Your task to perform on an android device: Open my contact list Image 0: 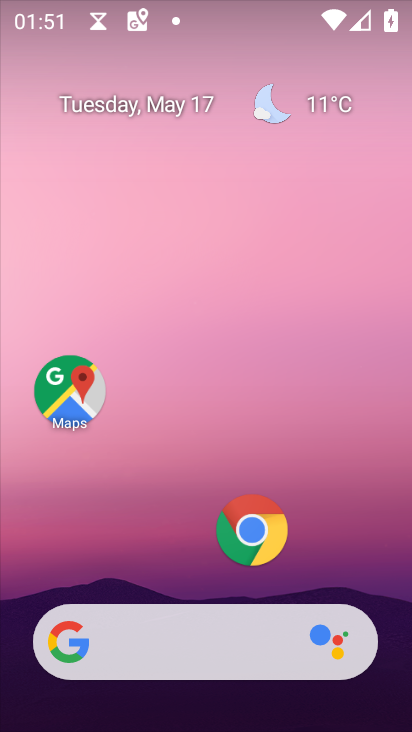
Step 0: drag from (309, 523) to (262, 183)
Your task to perform on an android device: Open my contact list Image 1: 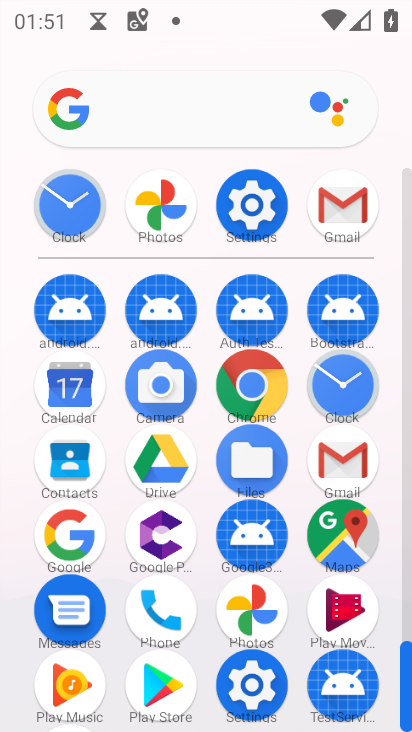
Step 1: click (70, 473)
Your task to perform on an android device: Open my contact list Image 2: 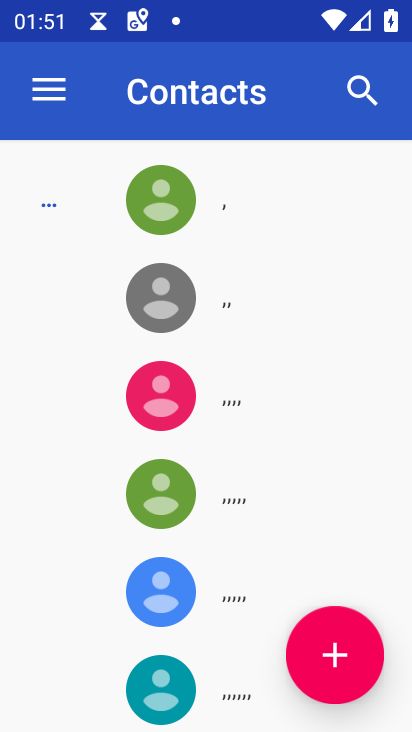
Step 2: task complete